Your task to perform on an android device: Open settings Image 0: 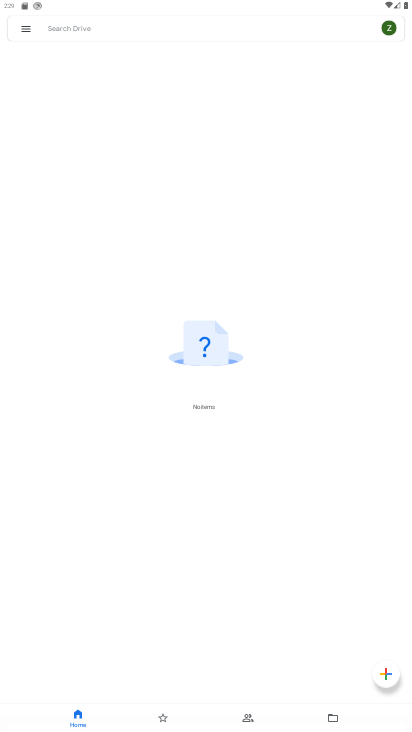
Step 0: press home button
Your task to perform on an android device: Open settings Image 1: 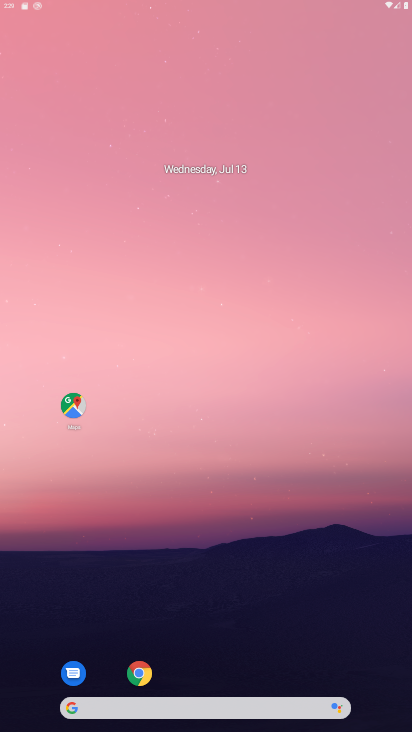
Step 1: drag from (219, 657) to (278, 209)
Your task to perform on an android device: Open settings Image 2: 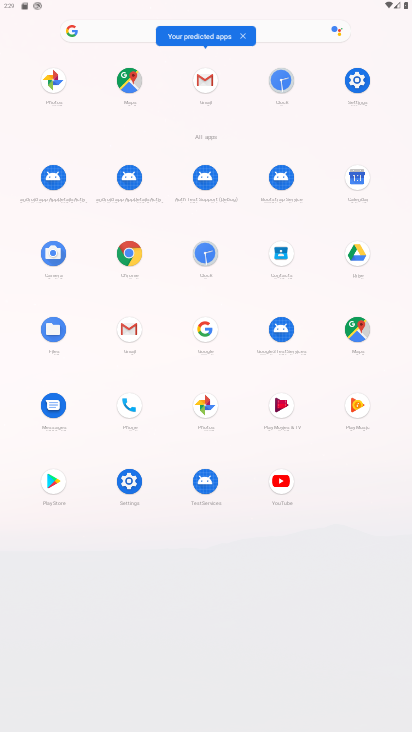
Step 2: click (133, 593)
Your task to perform on an android device: Open settings Image 3: 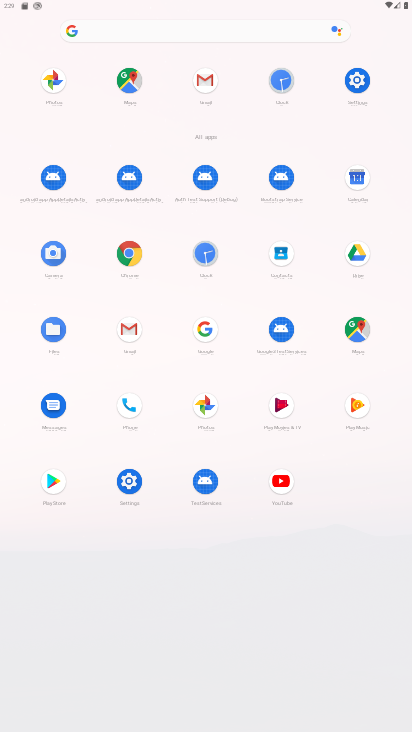
Step 3: click (137, 490)
Your task to perform on an android device: Open settings Image 4: 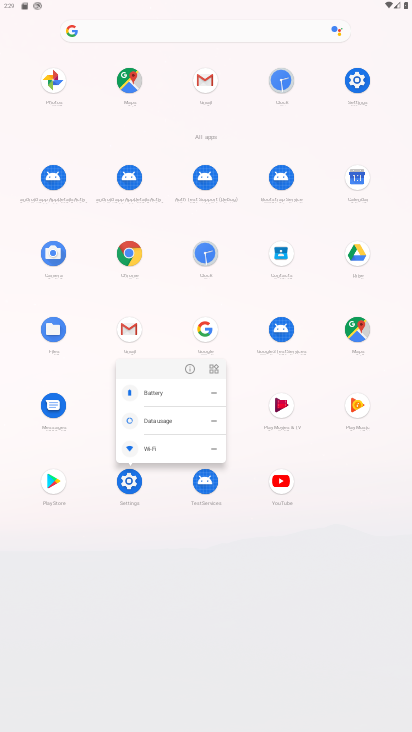
Step 4: click (134, 487)
Your task to perform on an android device: Open settings Image 5: 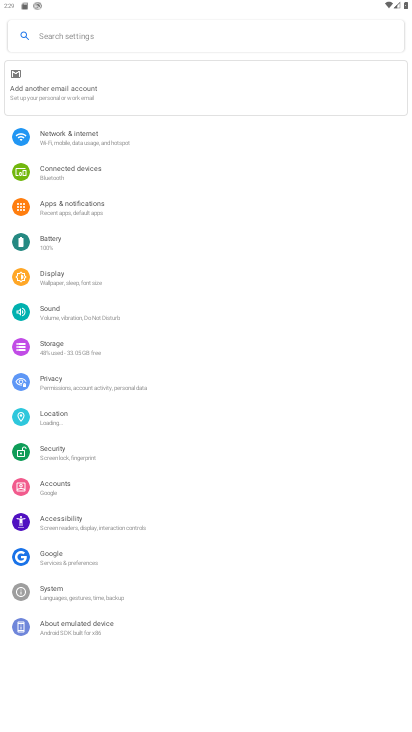
Step 5: task complete